Your task to perform on an android device: visit the assistant section in the google photos Image 0: 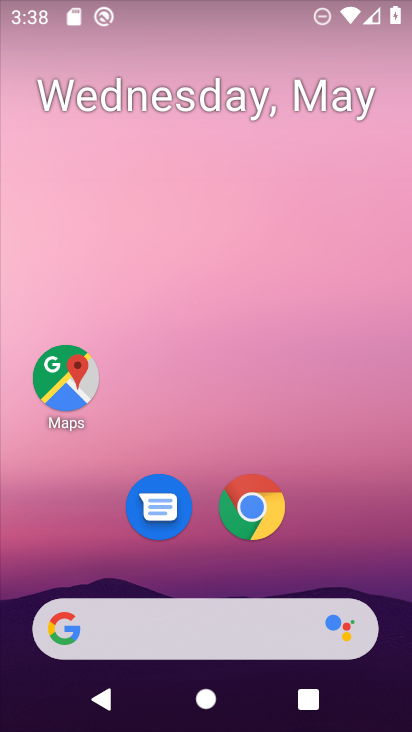
Step 0: drag from (194, 538) to (291, 53)
Your task to perform on an android device: visit the assistant section in the google photos Image 1: 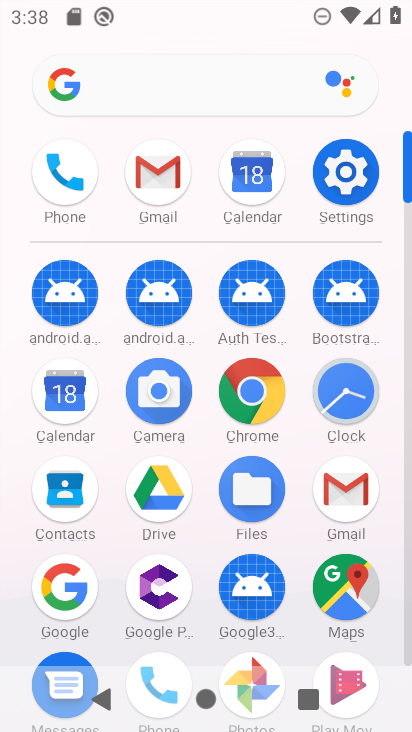
Step 1: drag from (269, 606) to (267, 186)
Your task to perform on an android device: visit the assistant section in the google photos Image 2: 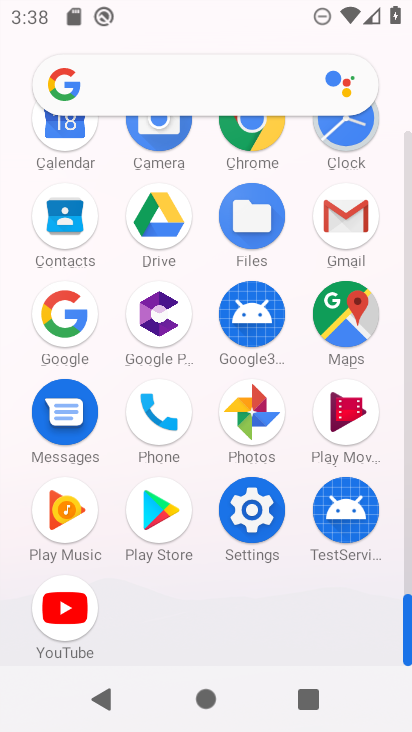
Step 2: click (250, 416)
Your task to perform on an android device: visit the assistant section in the google photos Image 3: 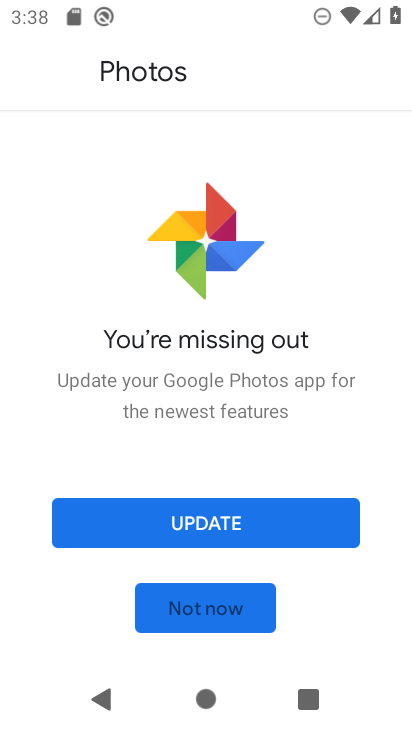
Step 3: drag from (205, 608) to (160, 608)
Your task to perform on an android device: visit the assistant section in the google photos Image 4: 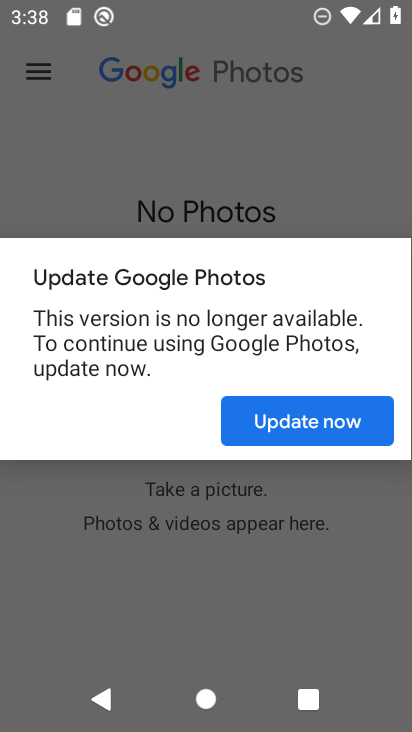
Step 4: click (269, 436)
Your task to perform on an android device: visit the assistant section in the google photos Image 5: 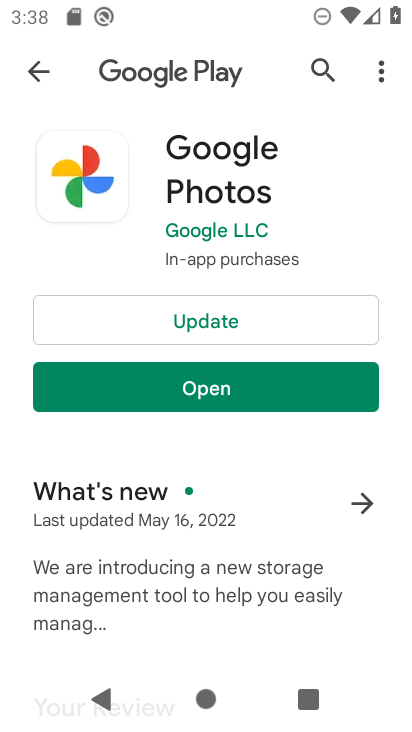
Step 5: task complete